Your task to perform on an android device: Go to wifi settings Image 0: 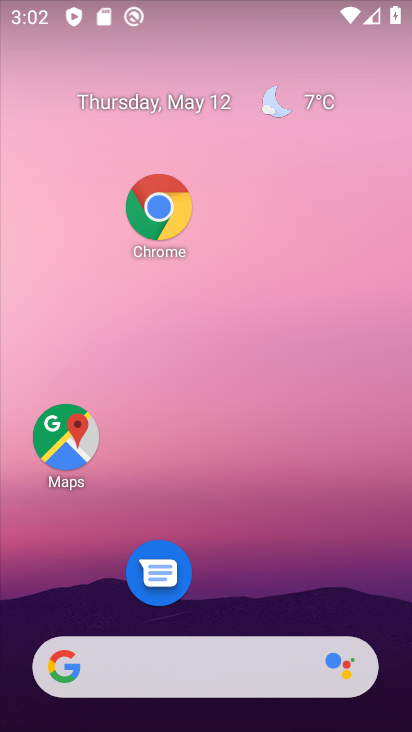
Step 0: drag from (241, 601) to (293, 34)
Your task to perform on an android device: Go to wifi settings Image 1: 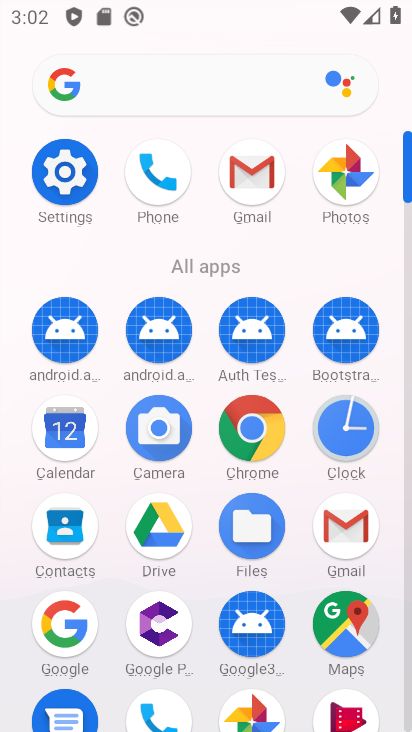
Step 1: click (65, 206)
Your task to perform on an android device: Go to wifi settings Image 2: 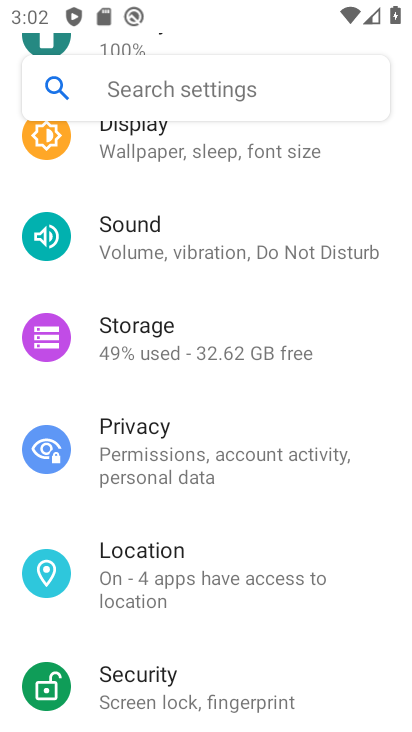
Step 2: drag from (187, 191) to (191, 599)
Your task to perform on an android device: Go to wifi settings Image 3: 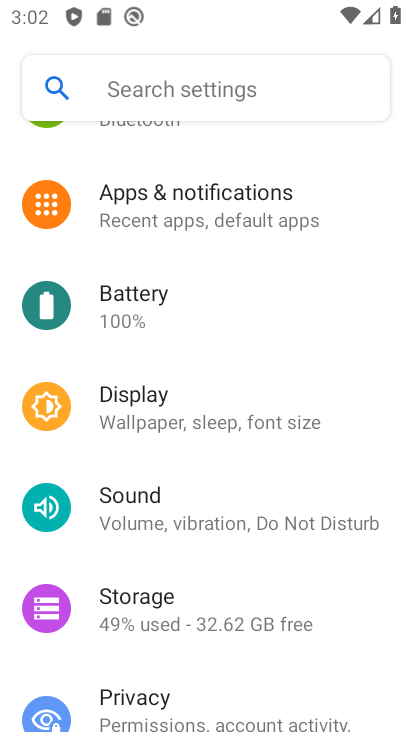
Step 3: drag from (180, 253) to (174, 624)
Your task to perform on an android device: Go to wifi settings Image 4: 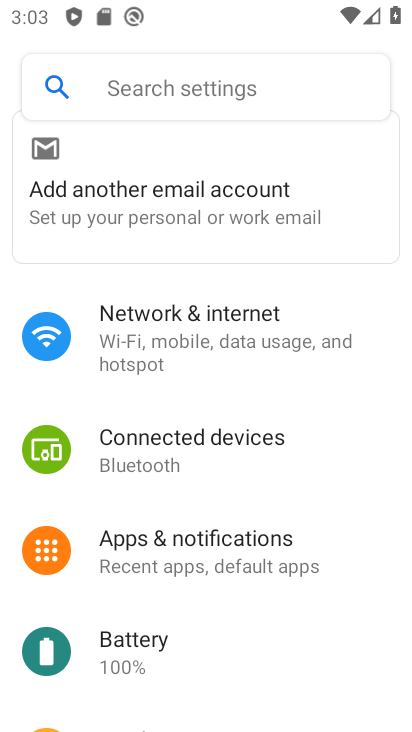
Step 4: click (146, 344)
Your task to perform on an android device: Go to wifi settings Image 5: 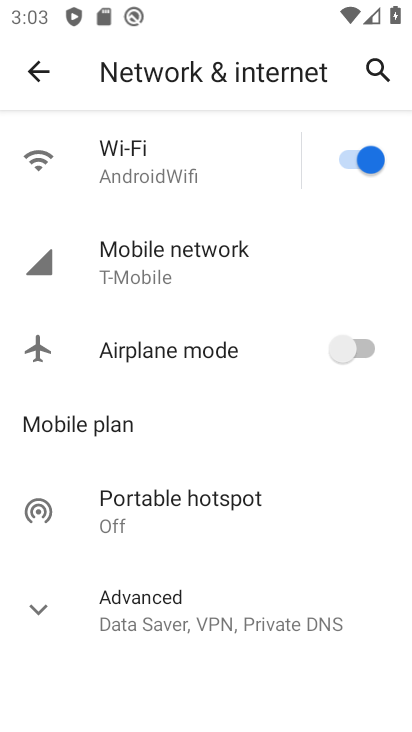
Step 5: click (132, 197)
Your task to perform on an android device: Go to wifi settings Image 6: 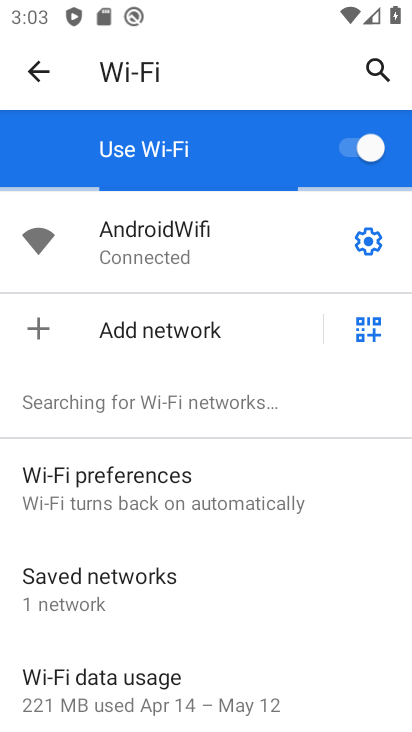
Step 6: task complete